Your task to perform on an android device: see creations saved in the google photos Image 0: 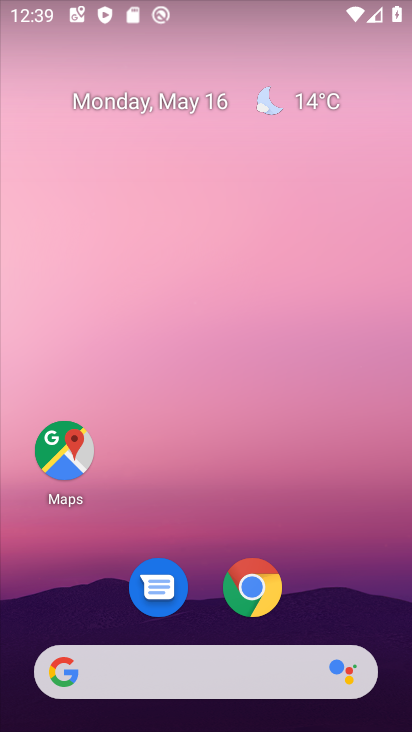
Step 0: drag from (219, 724) to (237, 179)
Your task to perform on an android device: see creations saved in the google photos Image 1: 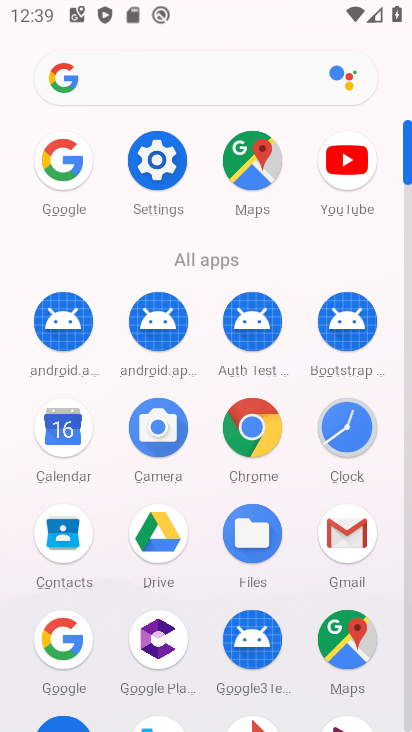
Step 1: drag from (199, 634) to (204, 322)
Your task to perform on an android device: see creations saved in the google photos Image 2: 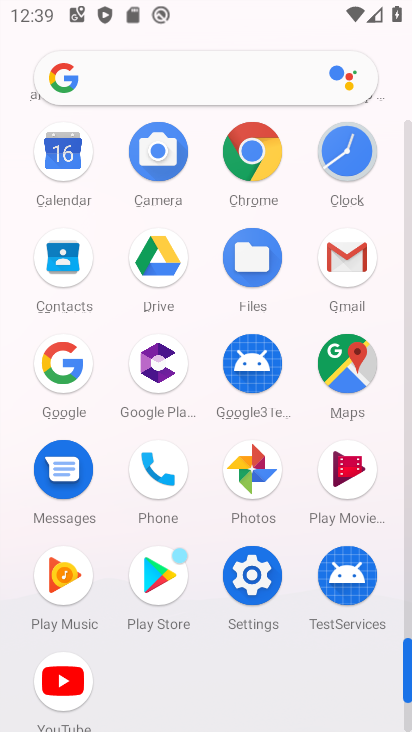
Step 2: click (261, 479)
Your task to perform on an android device: see creations saved in the google photos Image 3: 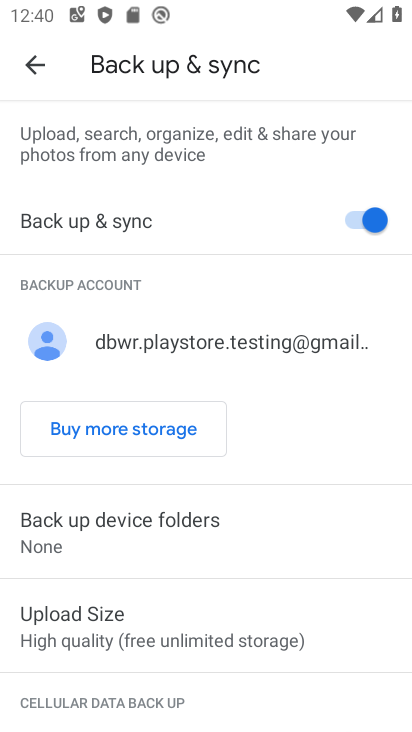
Step 3: click (32, 64)
Your task to perform on an android device: see creations saved in the google photos Image 4: 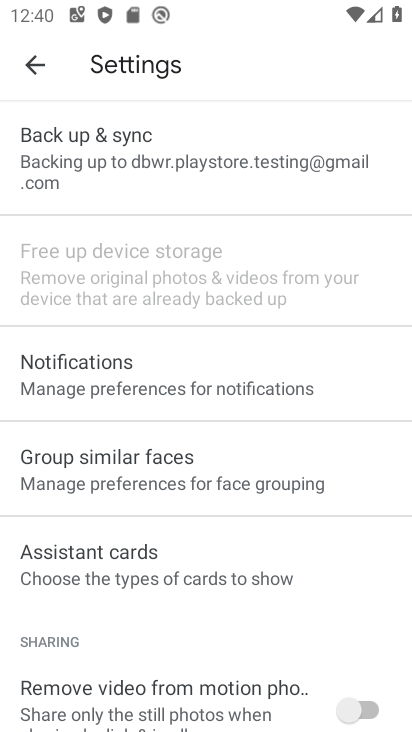
Step 4: click (29, 69)
Your task to perform on an android device: see creations saved in the google photos Image 5: 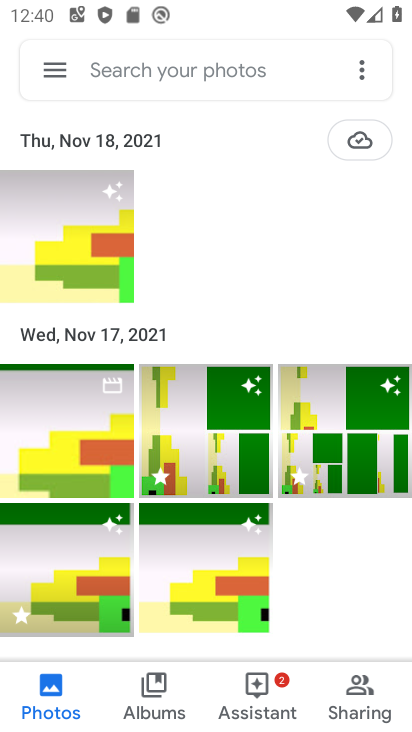
Step 5: click (174, 65)
Your task to perform on an android device: see creations saved in the google photos Image 6: 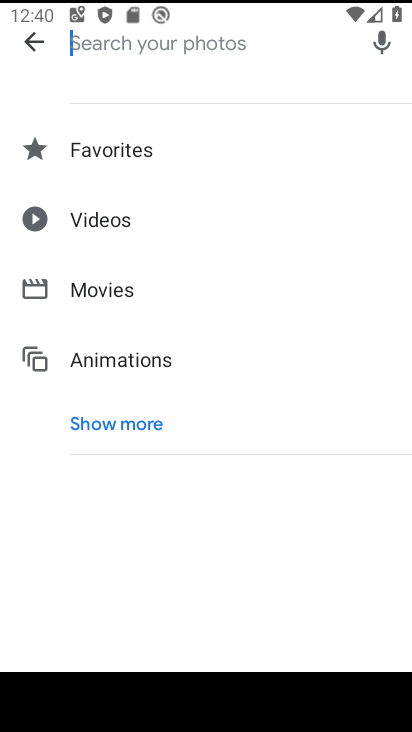
Step 6: click (114, 420)
Your task to perform on an android device: see creations saved in the google photos Image 7: 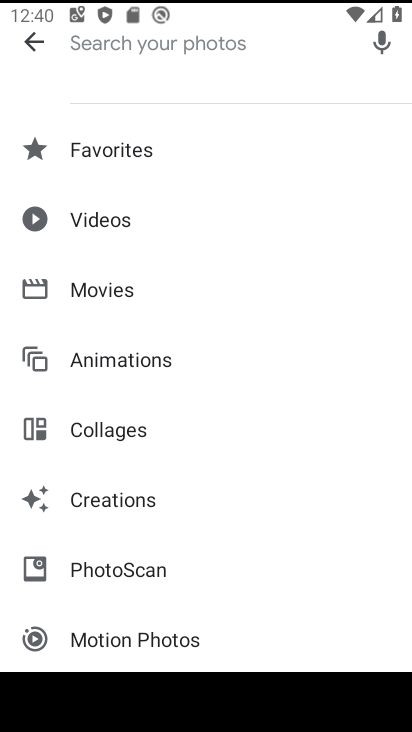
Step 7: click (119, 496)
Your task to perform on an android device: see creations saved in the google photos Image 8: 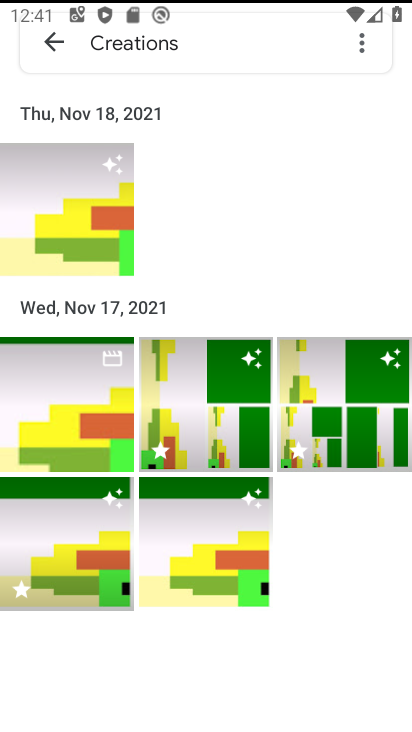
Step 8: task complete